Your task to perform on an android device: change the clock display to show seconds Image 0: 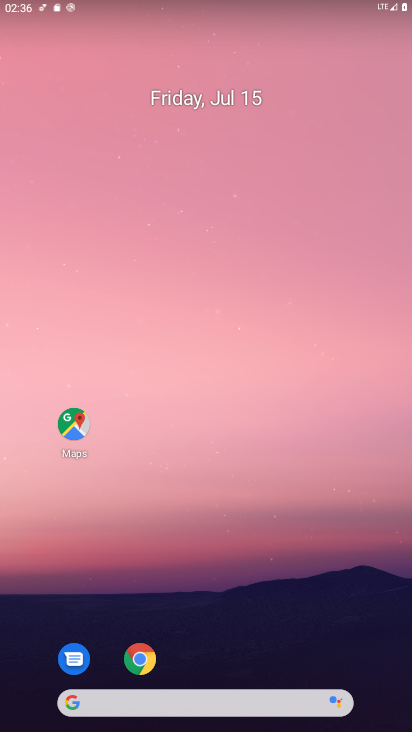
Step 0: drag from (183, 608) to (278, 66)
Your task to perform on an android device: change the clock display to show seconds Image 1: 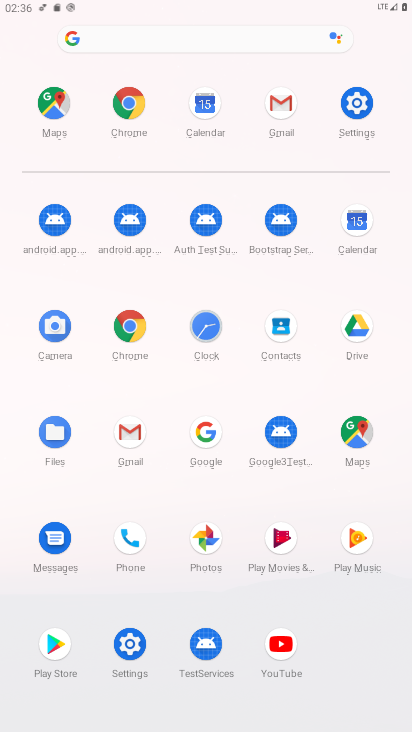
Step 1: click (224, 326)
Your task to perform on an android device: change the clock display to show seconds Image 2: 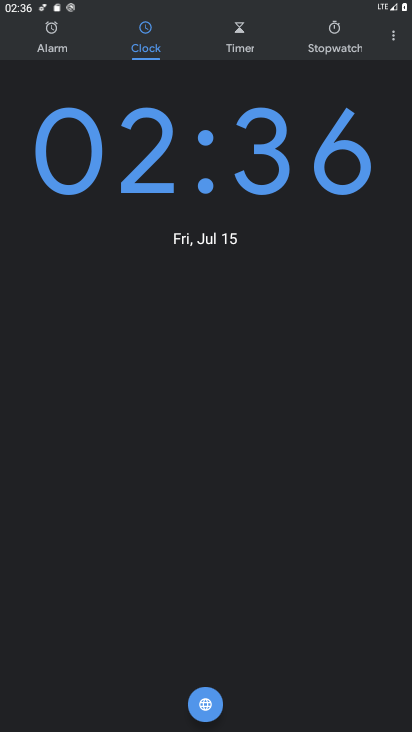
Step 2: click (403, 39)
Your task to perform on an android device: change the clock display to show seconds Image 3: 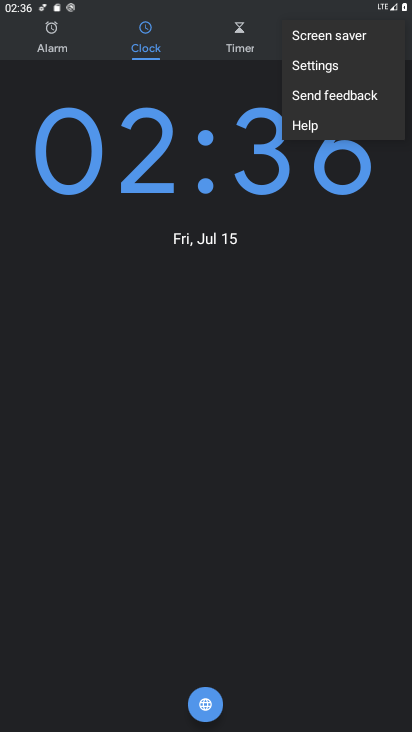
Step 3: click (340, 74)
Your task to perform on an android device: change the clock display to show seconds Image 4: 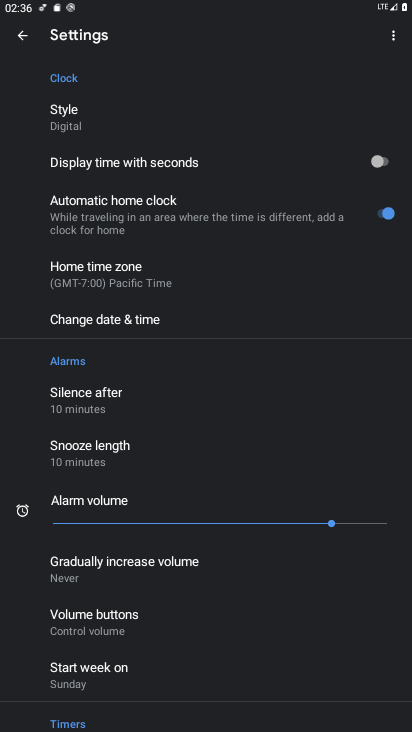
Step 4: click (379, 169)
Your task to perform on an android device: change the clock display to show seconds Image 5: 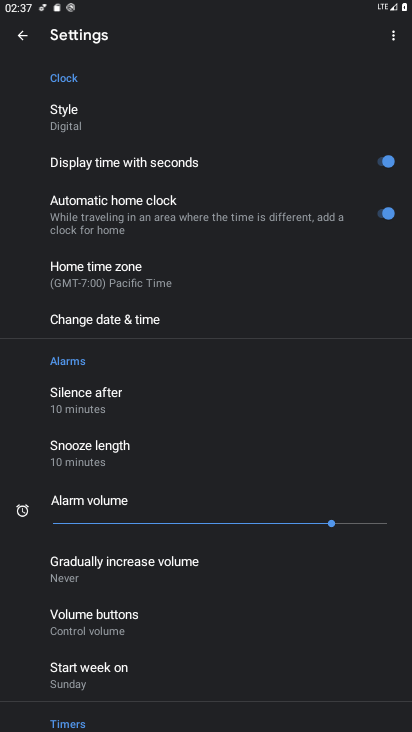
Step 5: task complete